Your task to perform on an android device: turn off location history Image 0: 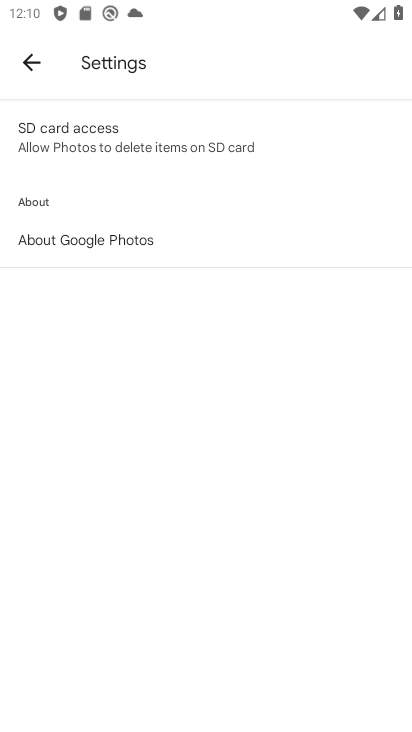
Step 0: click (18, 56)
Your task to perform on an android device: turn off location history Image 1: 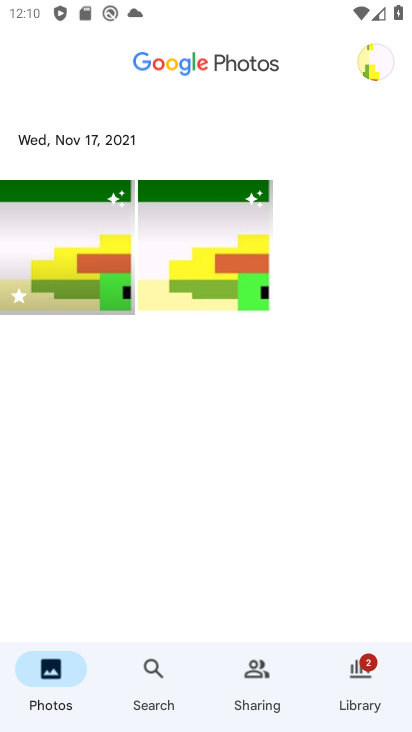
Step 1: press home button
Your task to perform on an android device: turn off location history Image 2: 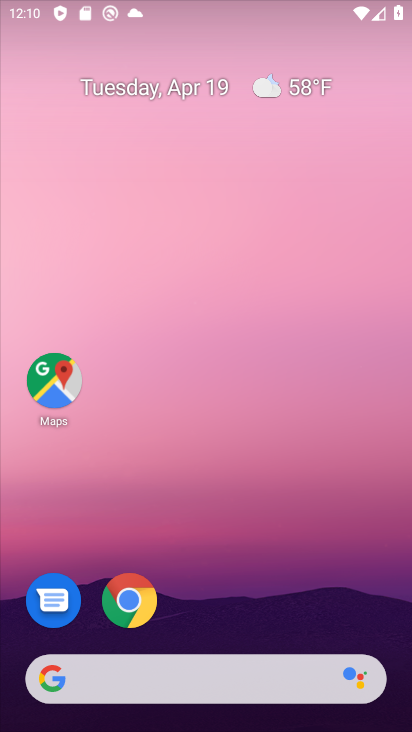
Step 2: drag from (315, 709) to (292, 270)
Your task to perform on an android device: turn off location history Image 3: 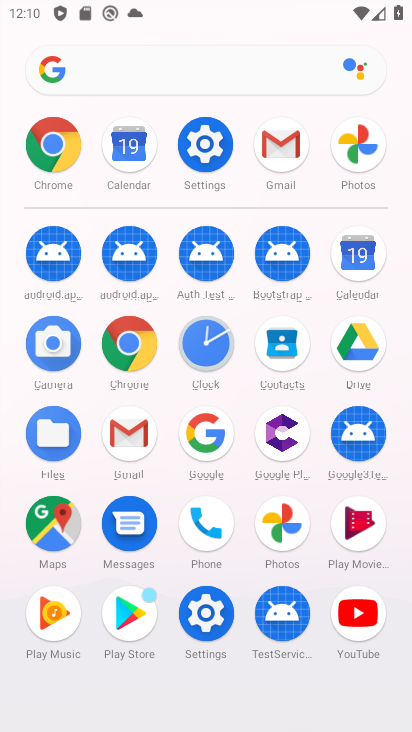
Step 3: click (204, 168)
Your task to perform on an android device: turn off location history Image 4: 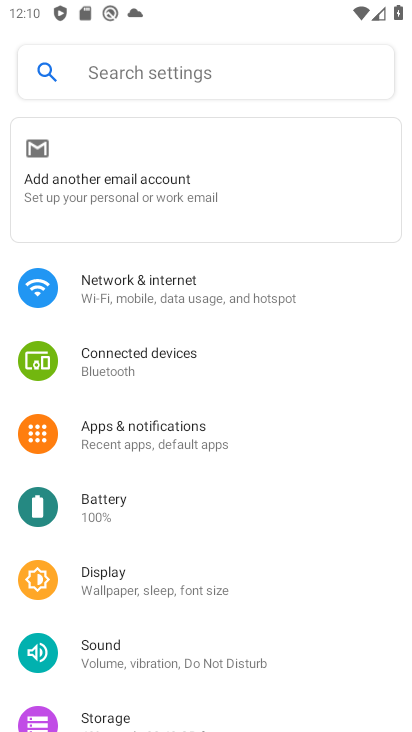
Step 4: click (150, 75)
Your task to perform on an android device: turn off location history Image 5: 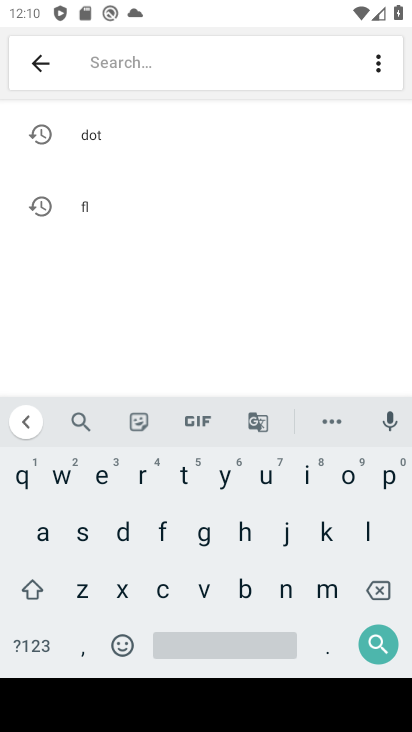
Step 5: click (365, 532)
Your task to perform on an android device: turn off location history Image 6: 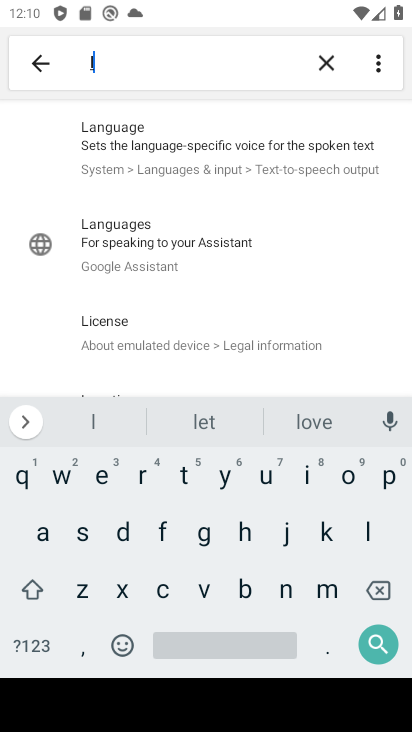
Step 6: click (352, 487)
Your task to perform on an android device: turn off location history Image 7: 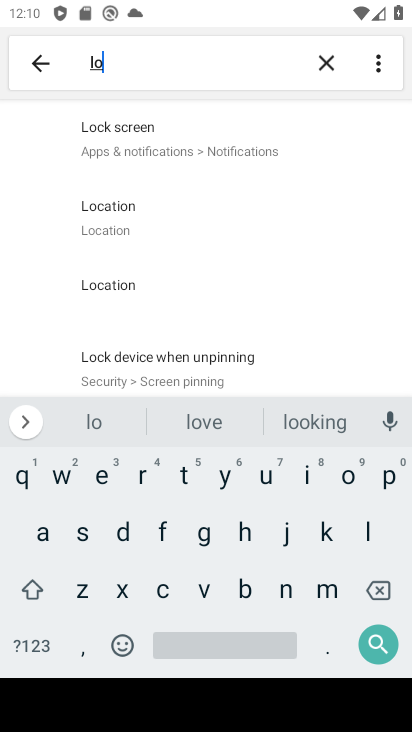
Step 7: click (114, 241)
Your task to perform on an android device: turn off location history Image 8: 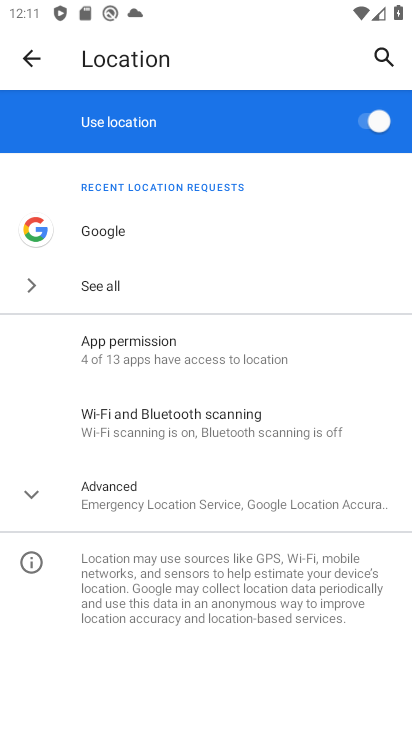
Step 8: click (139, 486)
Your task to perform on an android device: turn off location history Image 9: 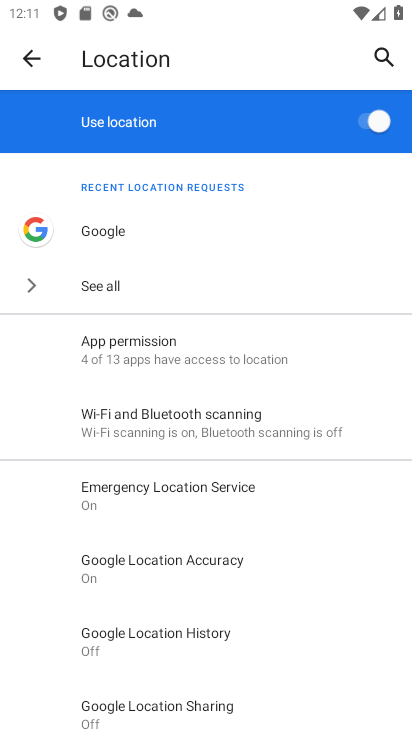
Step 9: click (173, 635)
Your task to perform on an android device: turn off location history Image 10: 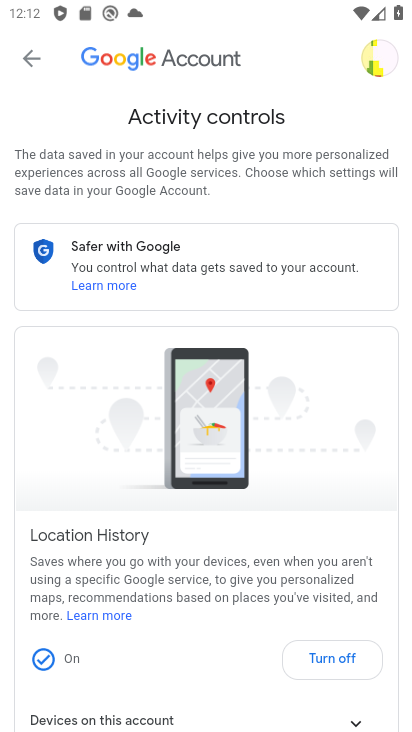
Step 10: task complete